Your task to perform on an android device: turn on data saver in the chrome app Image 0: 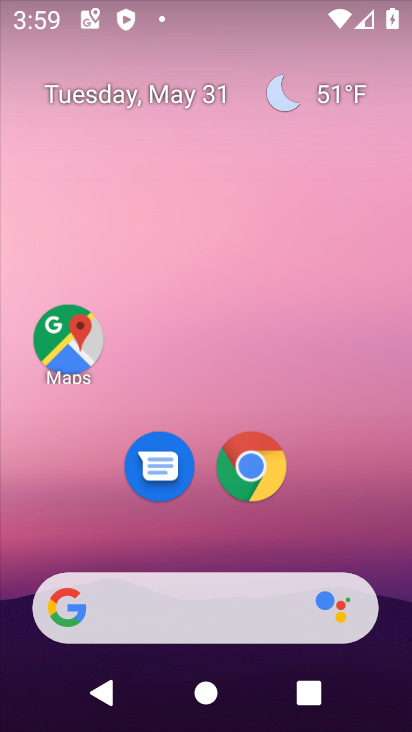
Step 0: drag from (206, 549) to (216, 91)
Your task to perform on an android device: turn on data saver in the chrome app Image 1: 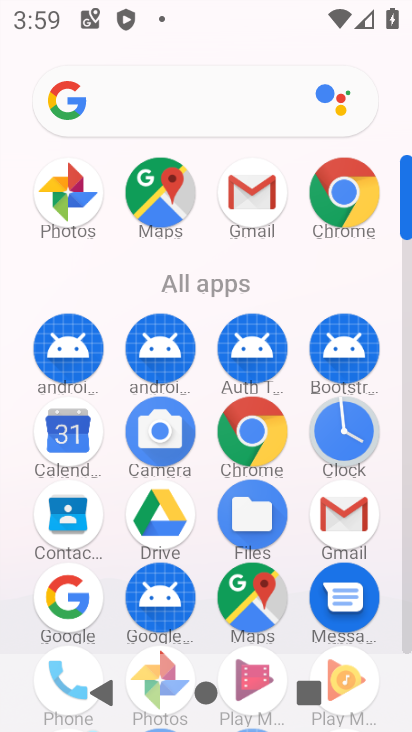
Step 1: click (340, 187)
Your task to perform on an android device: turn on data saver in the chrome app Image 2: 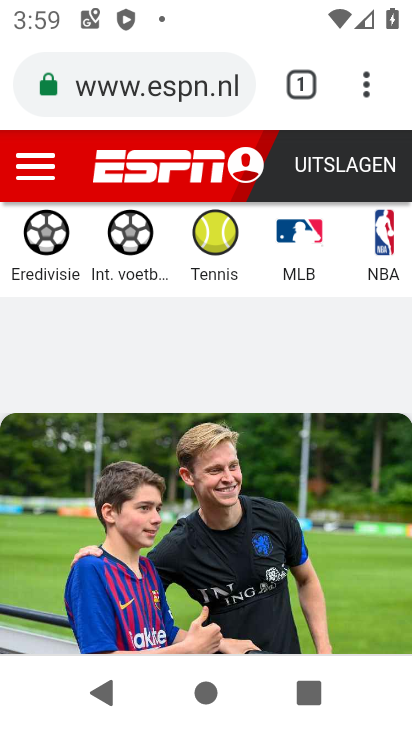
Step 2: click (367, 85)
Your task to perform on an android device: turn on data saver in the chrome app Image 3: 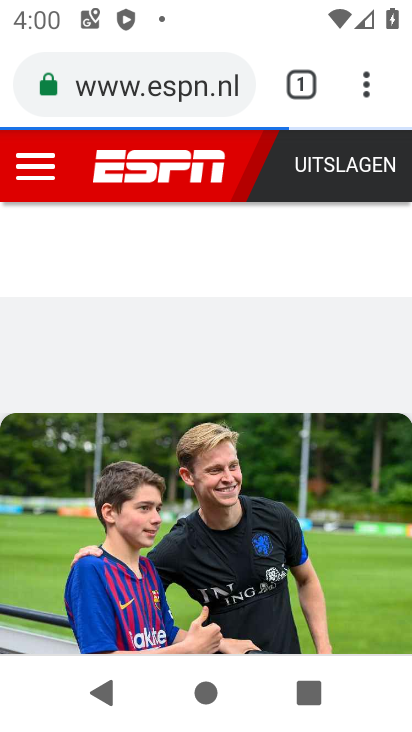
Step 3: click (366, 82)
Your task to perform on an android device: turn on data saver in the chrome app Image 4: 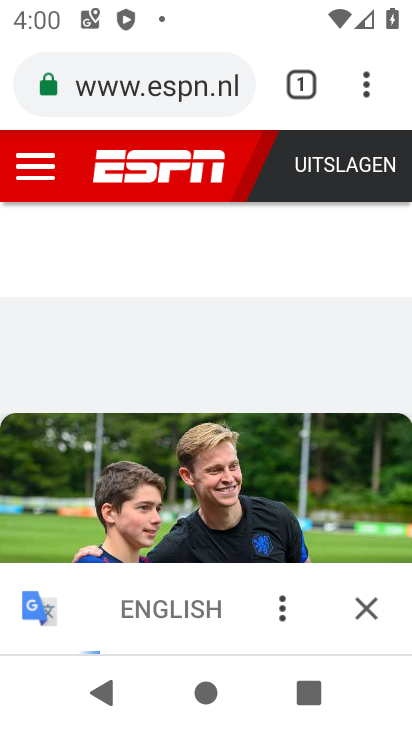
Step 4: click (364, 82)
Your task to perform on an android device: turn on data saver in the chrome app Image 5: 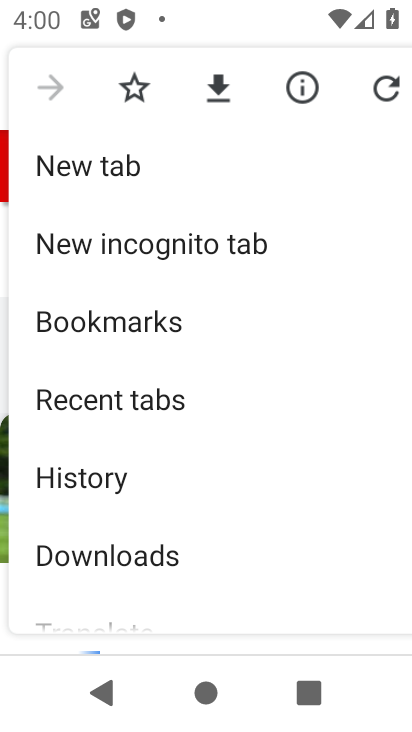
Step 5: drag from (204, 611) to (206, 94)
Your task to perform on an android device: turn on data saver in the chrome app Image 6: 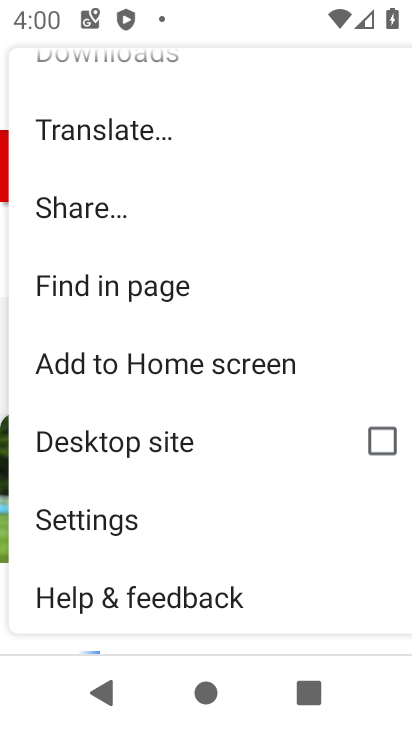
Step 6: click (145, 515)
Your task to perform on an android device: turn on data saver in the chrome app Image 7: 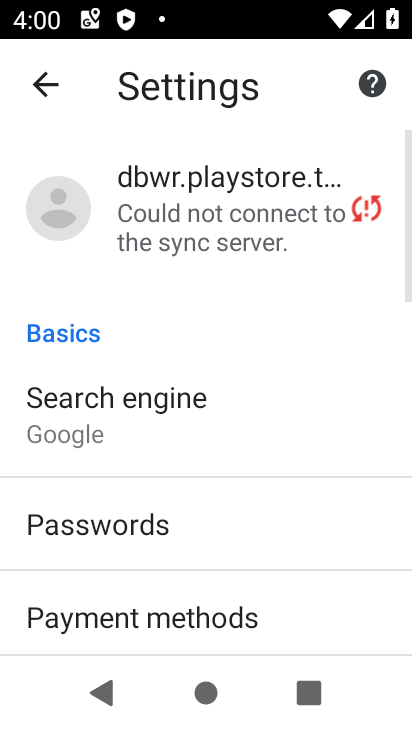
Step 7: drag from (276, 617) to (281, 51)
Your task to perform on an android device: turn on data saver in the chrome app Image 8: 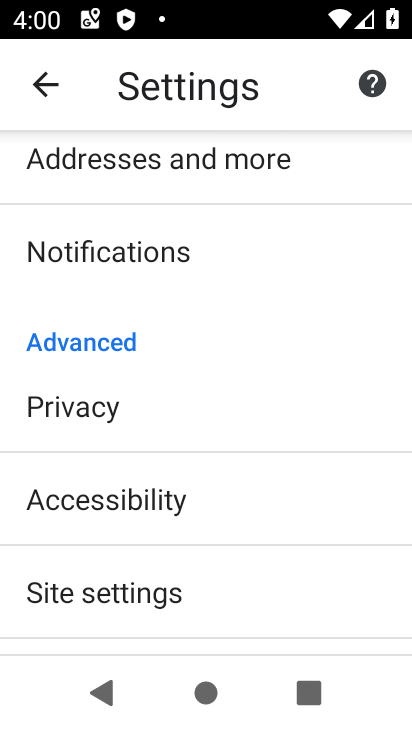
Step 8: drag from (237, 605) to (243, 158)
Your task to perform on an android device: turn on data saver in the chrome app Image 9: 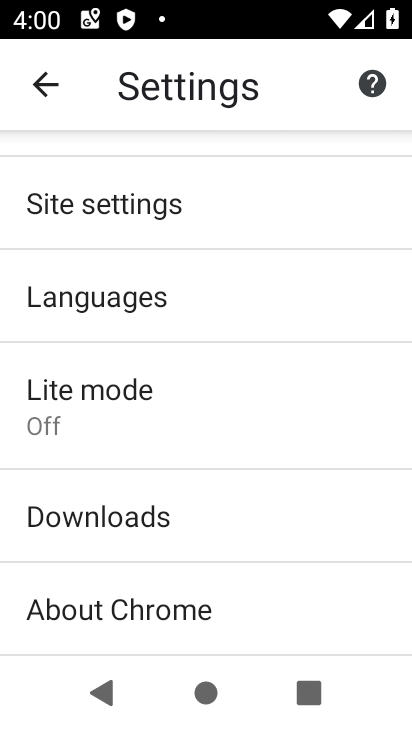
Step 9: click (122, 422)
Your task to perform on an android device: turn on data saver in the chrome app Image 10: 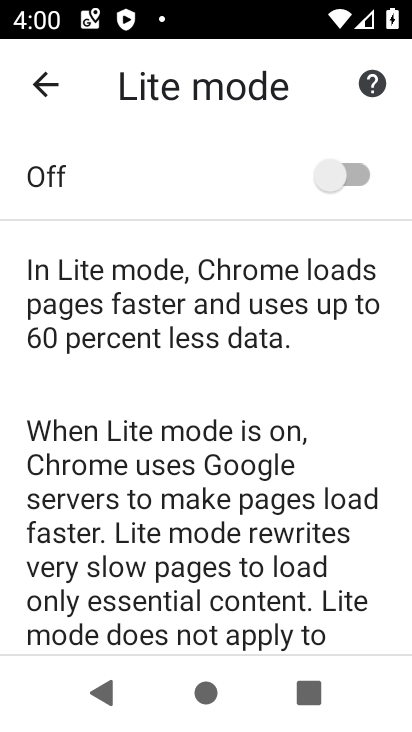
Step 10: click (350, 169)
Your task to perform on an android device: turn on data saver in the chrome app Image 11: 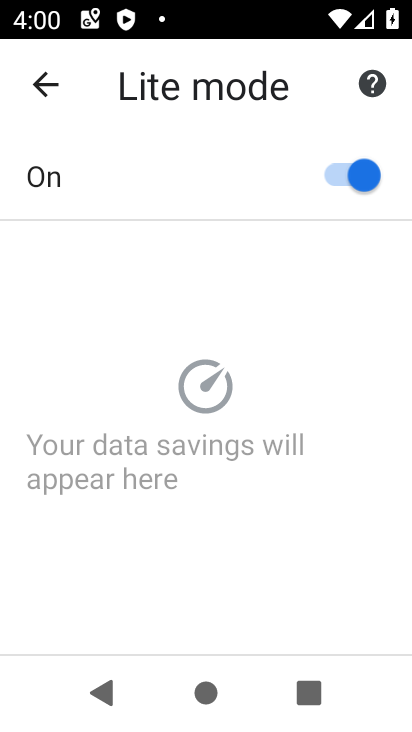
Step 11: task complete